Your task to perform on an android device: install app "eBay: The shopping marketplace" Image 0: 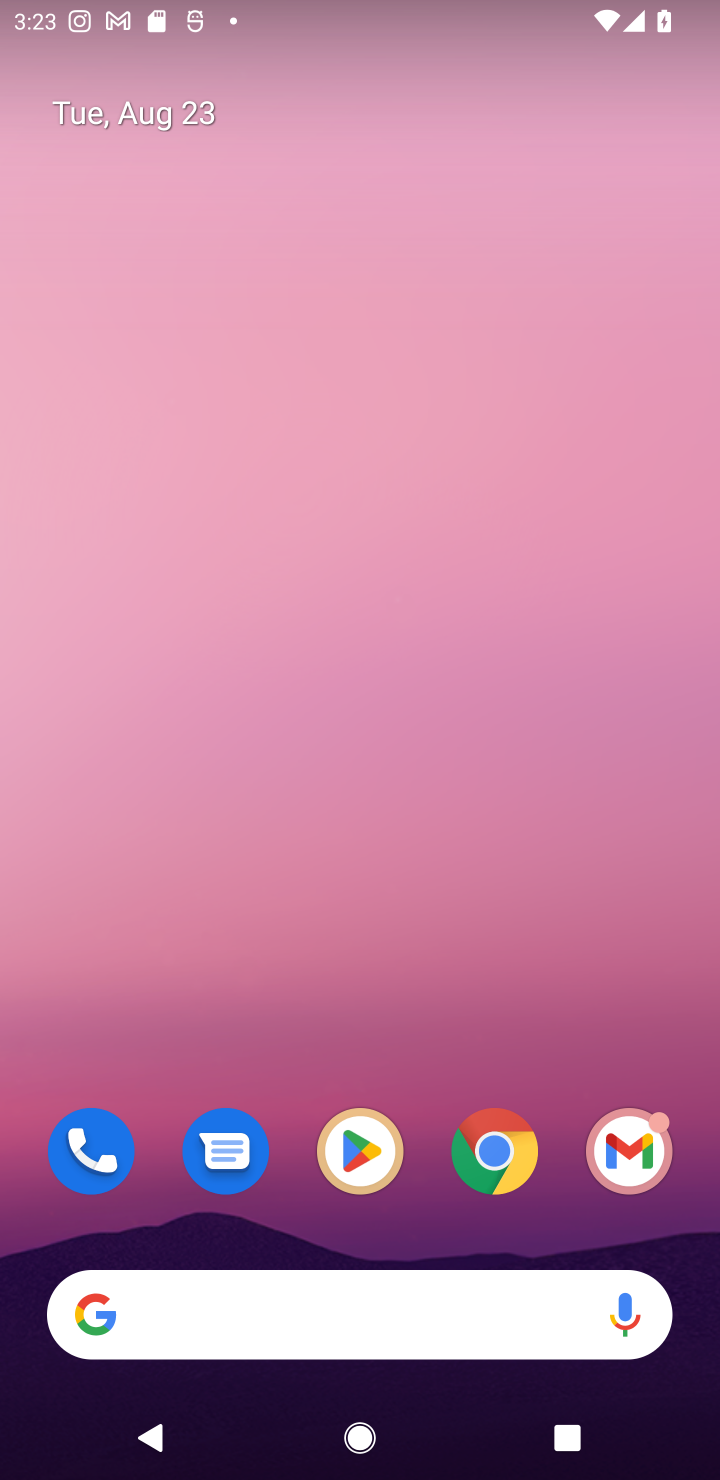
Step 0: click (346, 1159)
Your task to perform on an android device: install app "eBay: The shopping marketplace" Image 1: 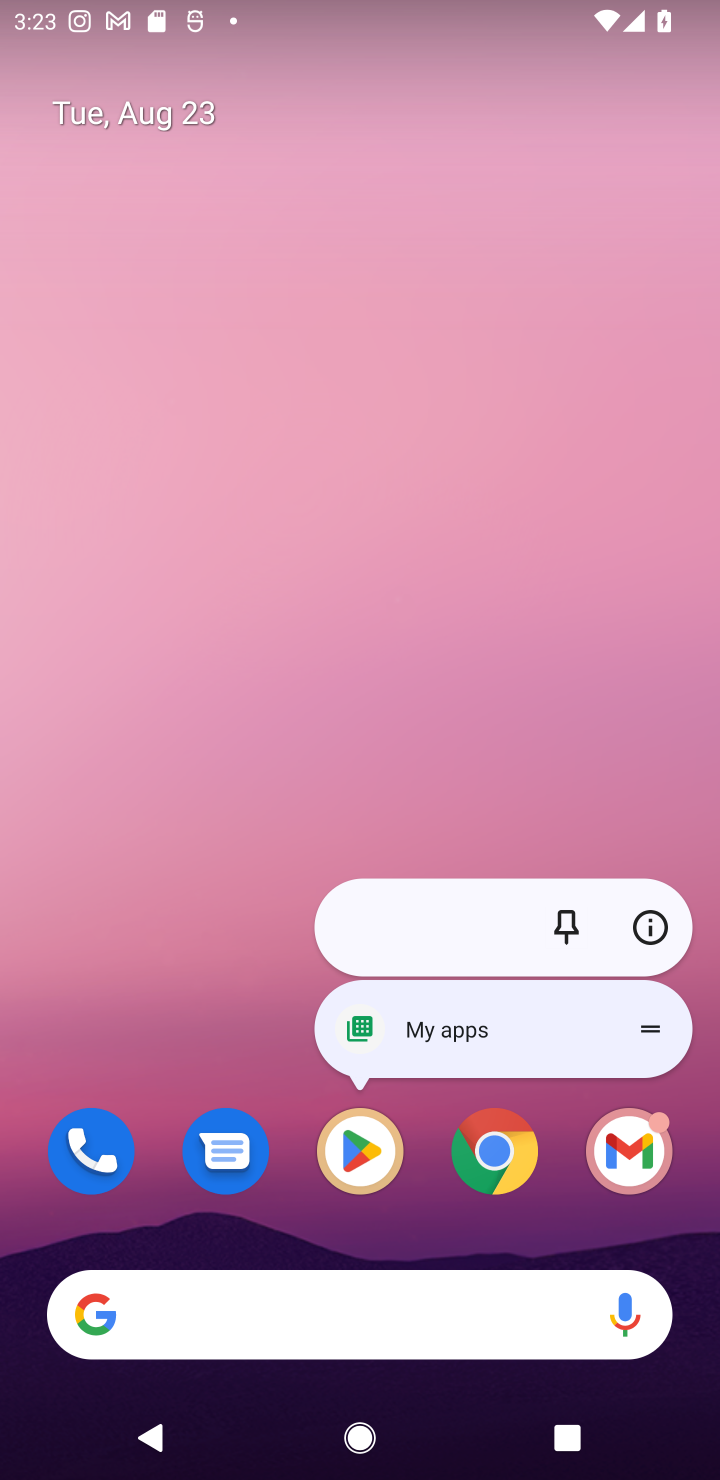
Step 1: click (346, 1168)
Your task to perform on an android device: install app "eBay: The shopping marketplace" Image 2: 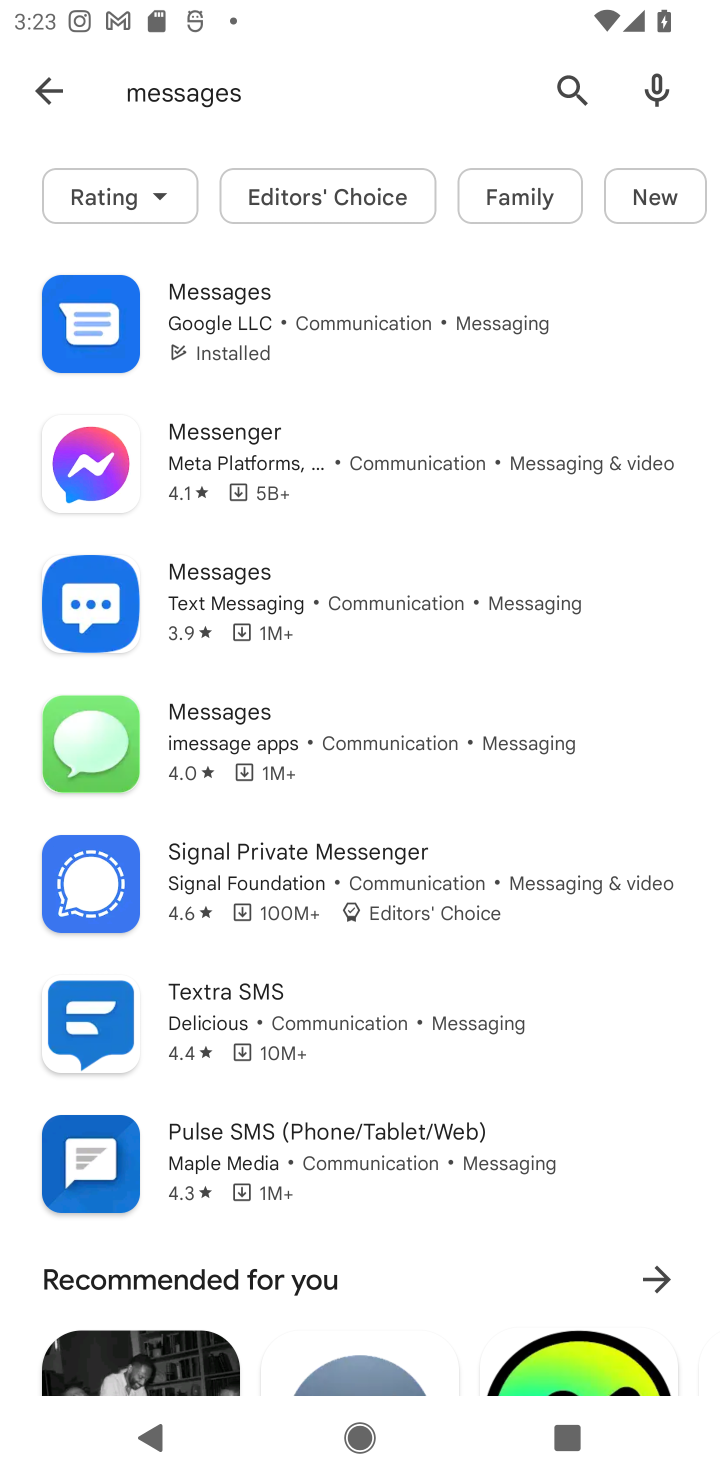
Step 2: click (565, 91)
Your task to perform on an android device: install app "eBay: The shopping marketplace" Image 3: 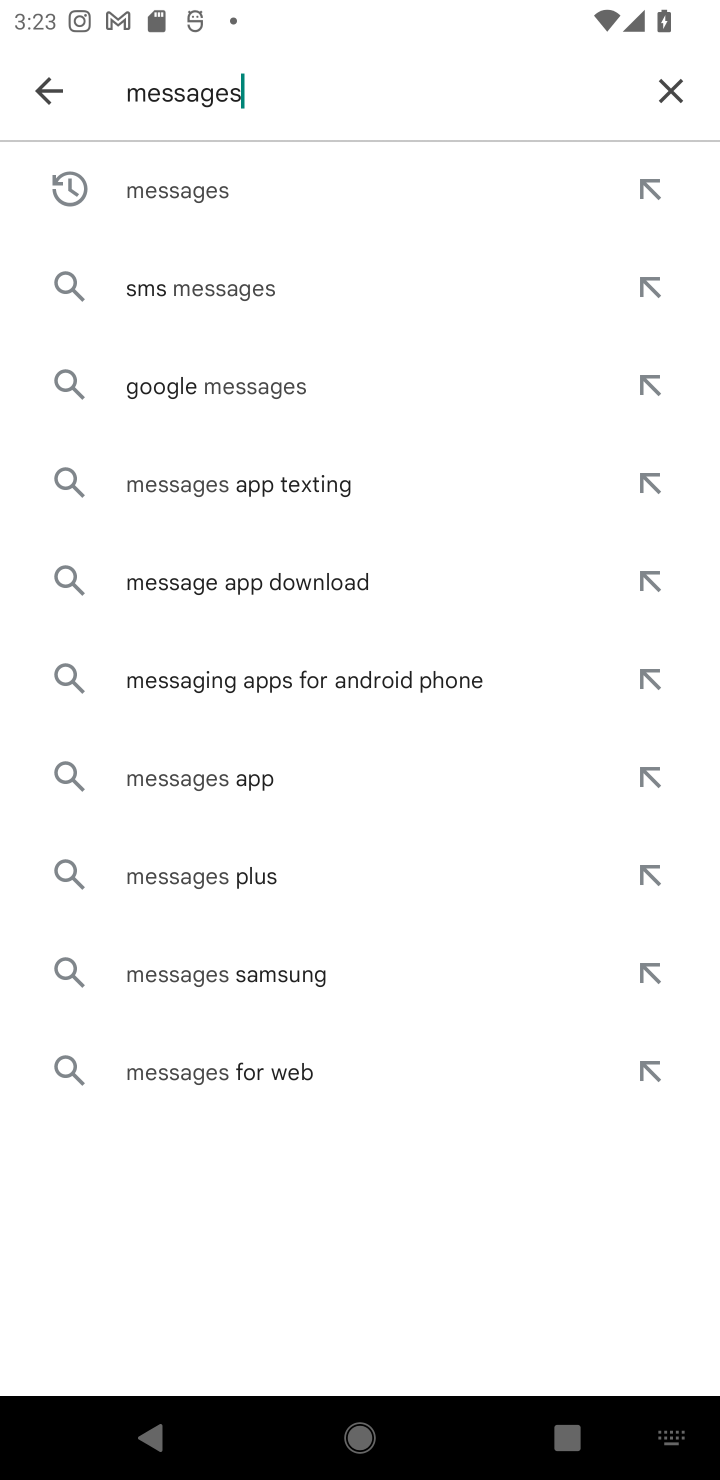
Step 3: click (668, 94)
Your task to perform on an android device: install app "eBay: The shopping marketplace" Image 4: 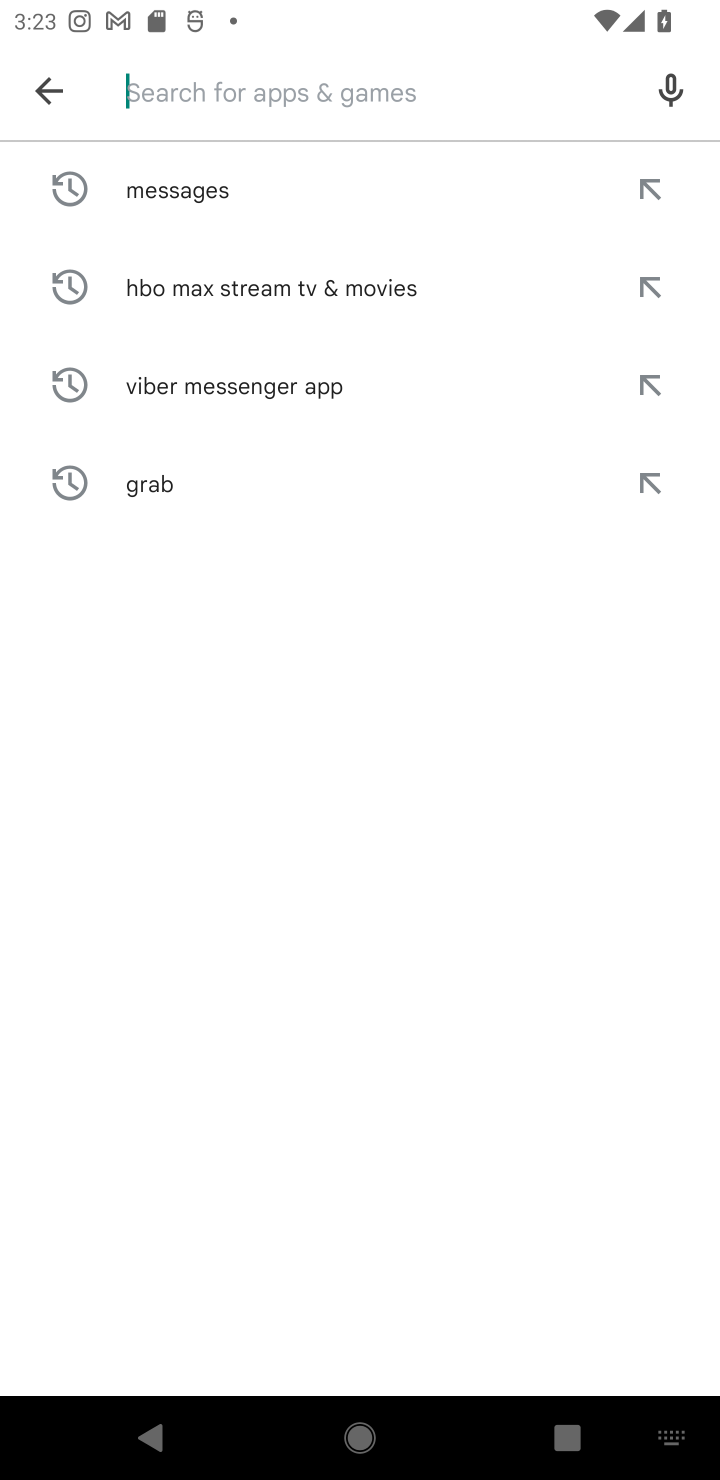
Step 4: type "eBay: The shopping marketplace"
Your task to perform on an android device: install app "eBay: The shopping marketplace" Image 5: 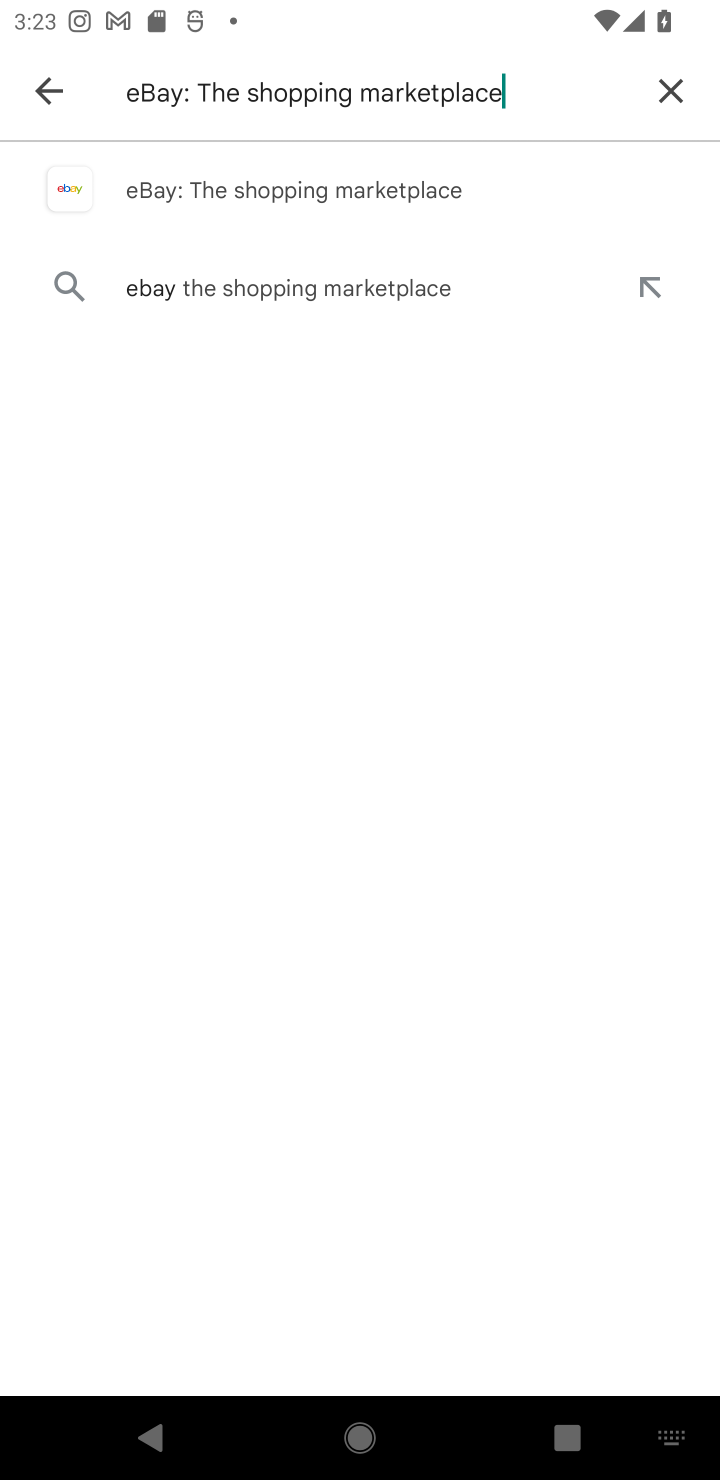
Step 5: click (397, 197)
Your task to perform on an android device: install app "eBay: The shopping marketplace" Image 6: 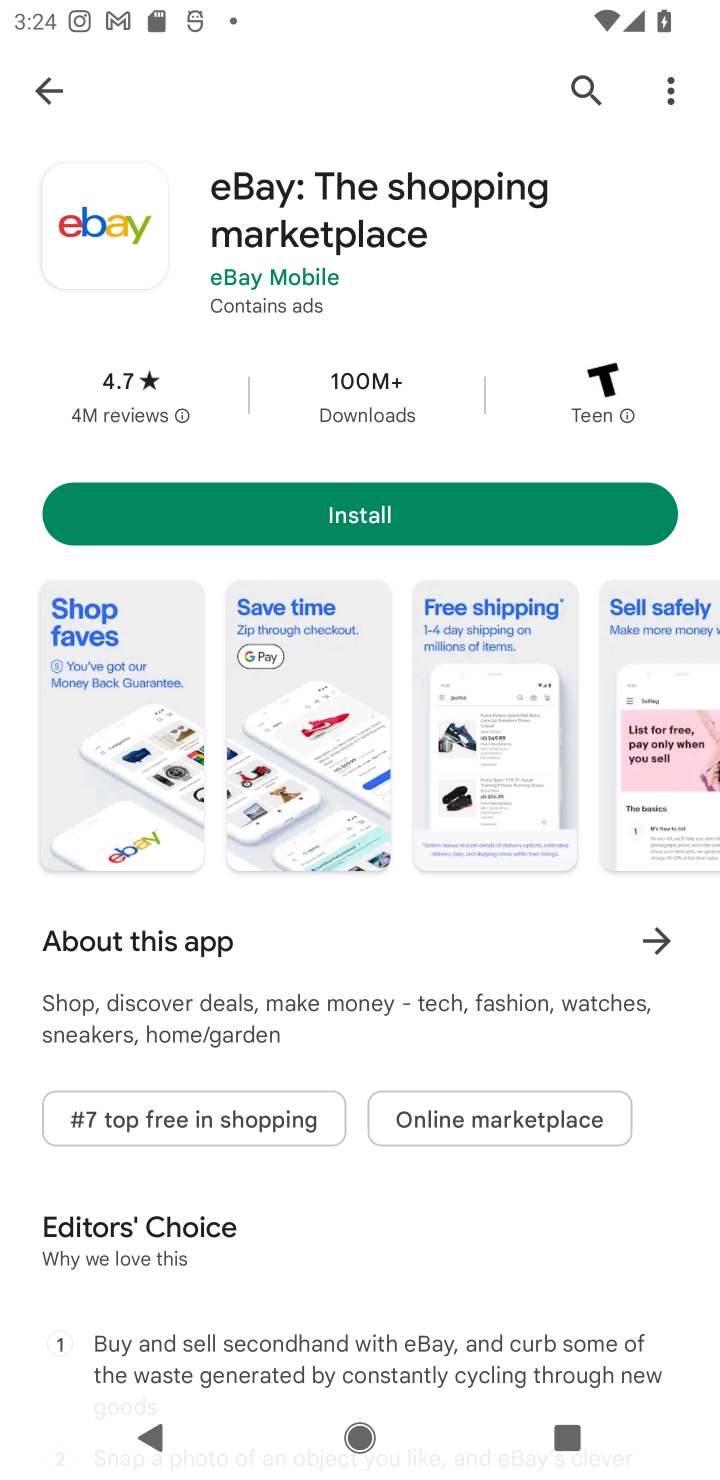
Step 6: click (393, 514)
Your task to perform on an android device: install app "eBay: The shopping marketplace" Image 7: 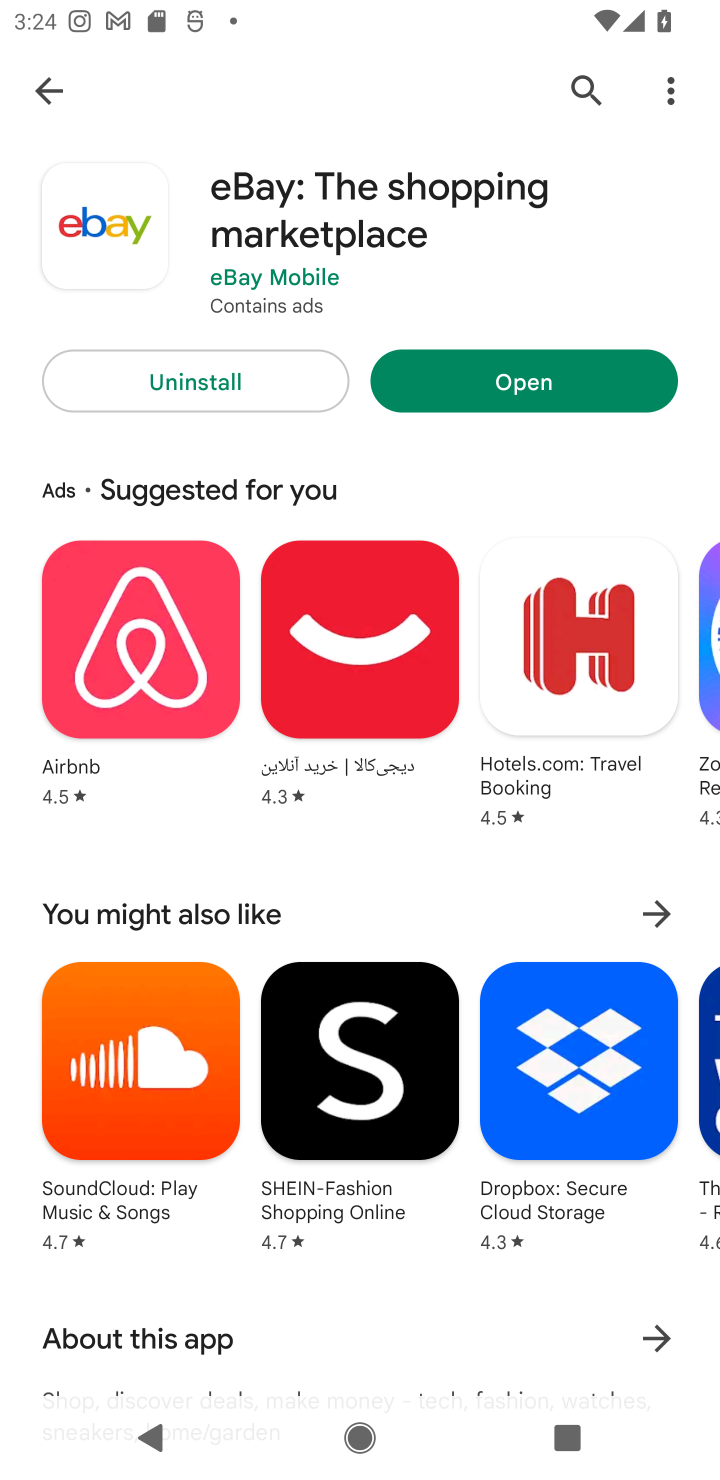
Step 7: task complete